Your task to perform on an android device: turn on bluetooth scan Image 0: 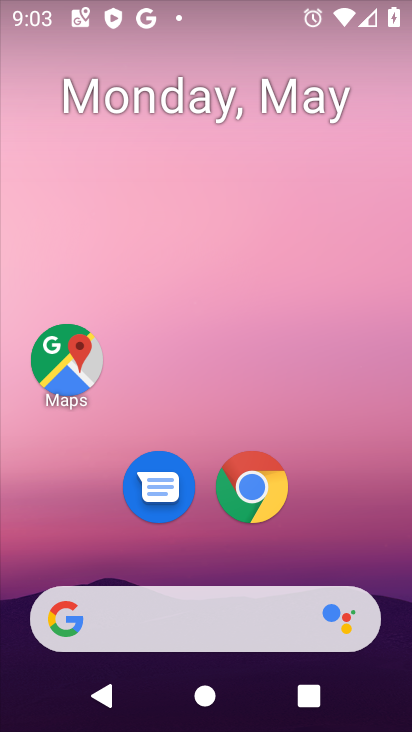
Step 0: drag from (220, 549) to (252, 116)
Your task to perform on an android device: turn on bluetooth scan Image 1: 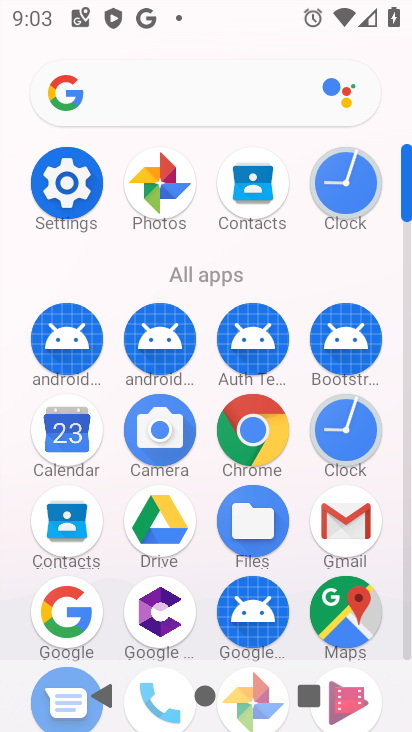
Step 1: click (69, 210)
Your task to perform on an android device: turn on bluetooth scan Image 2: 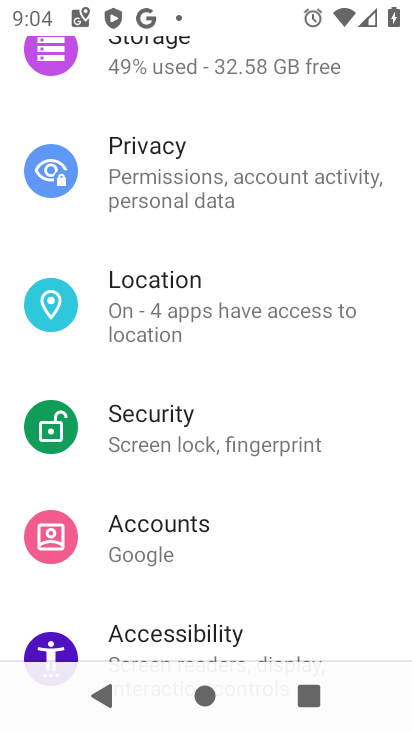
Step 2: click (217, 311)
Your task to perform on an android device: turn on bluetooth scan Image 3: 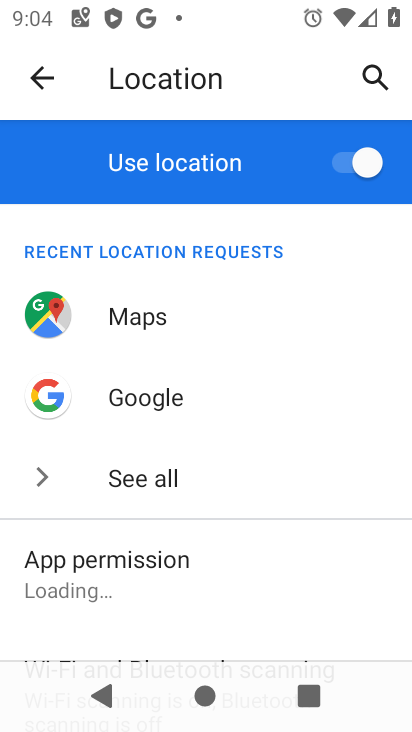
Step 3: drag from (135, 624) to (244, 157)
Your task to perform on an android device: turn on bluetooth scan Image 4: 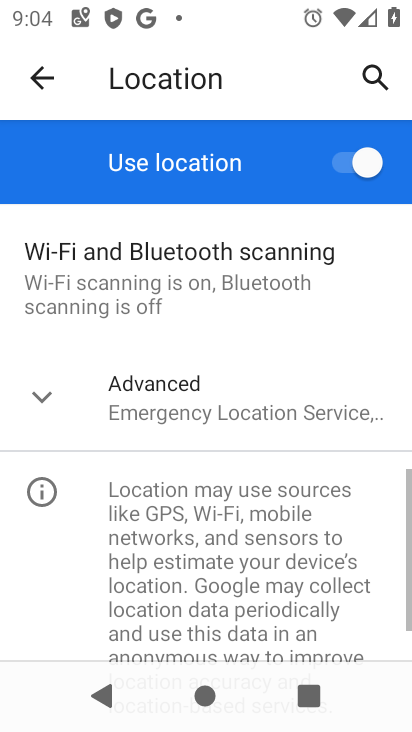
Step 4: click (261, 403)
Your task to perform on an android device: turn on bluetooth scan Image 5: 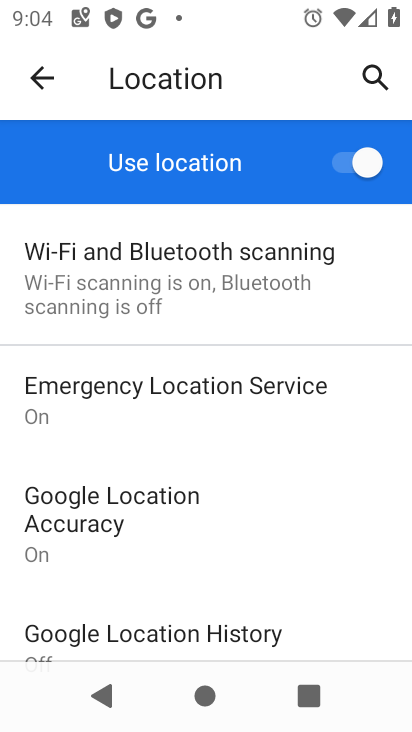
Step 5: click (252, 282)
Your task to perform on an android device: turn on bluetooth scan Image 6: 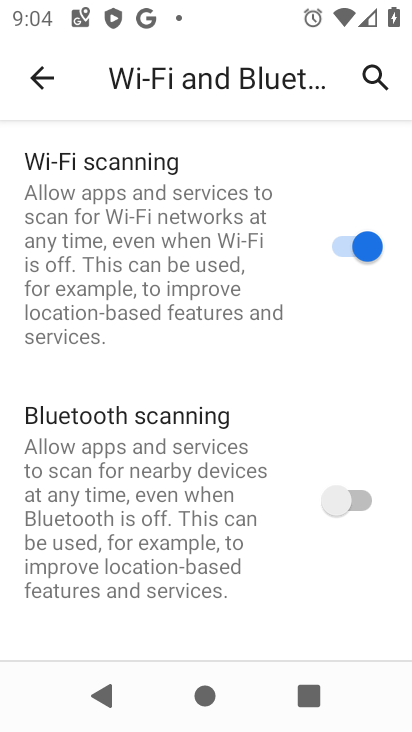
Step 6: click (367, 497)
Your task to perform on an android device: turn on bluetooth scan Image 7: 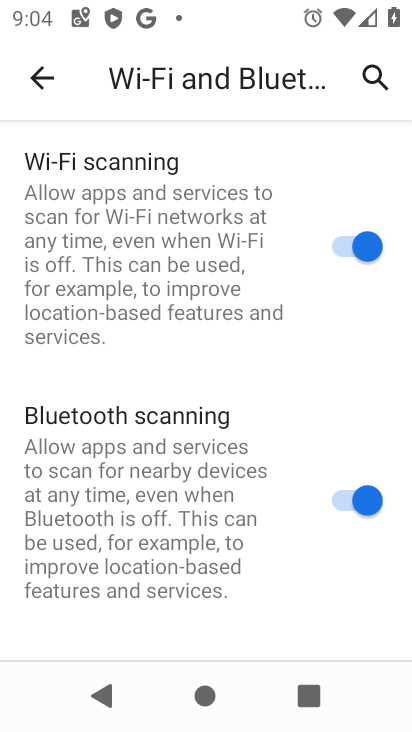
Step 7: task complete